Your task to perform on an android device: read, delete, or share a saved page in the chrome app Image 0: 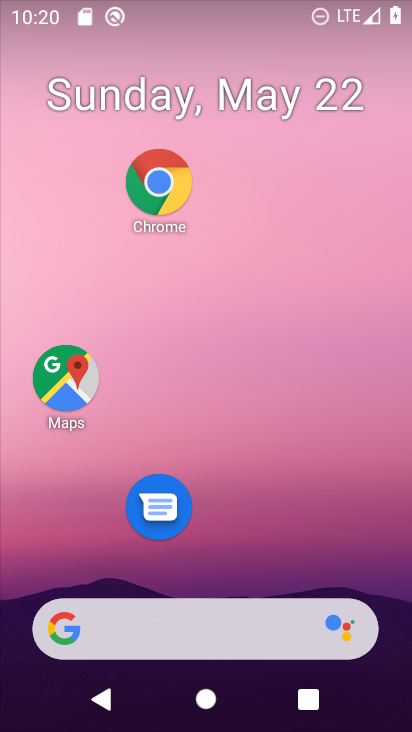
Step 0: click (162, 189)
Your task to perform on an android device: read, delete, or share a saved page in the chrome app Image 1: 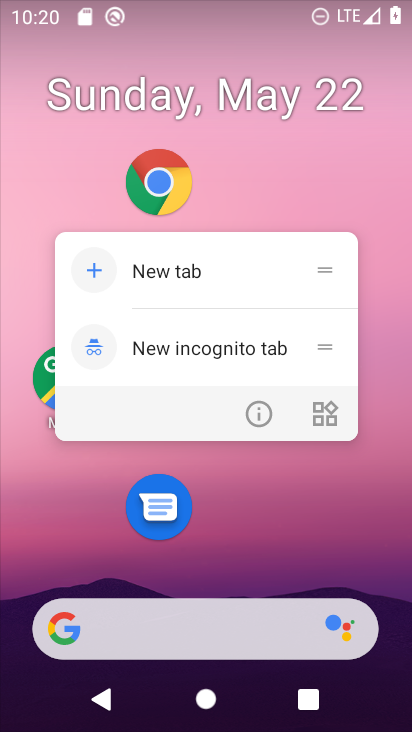
Step 1: click (162, 164)
Your task to perform on an android device: read, delete, or share a saved page in the chrome app Image 2: 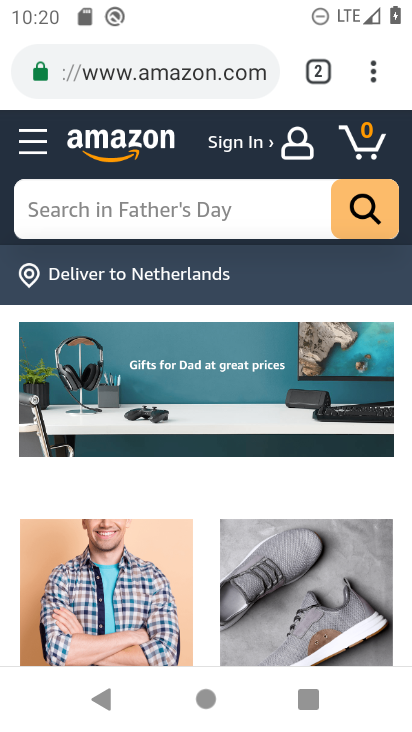
Step 2: click (368, 64)
Your task to perform on an android device: read, delete, or share a saved page in the chrome app Image 3: 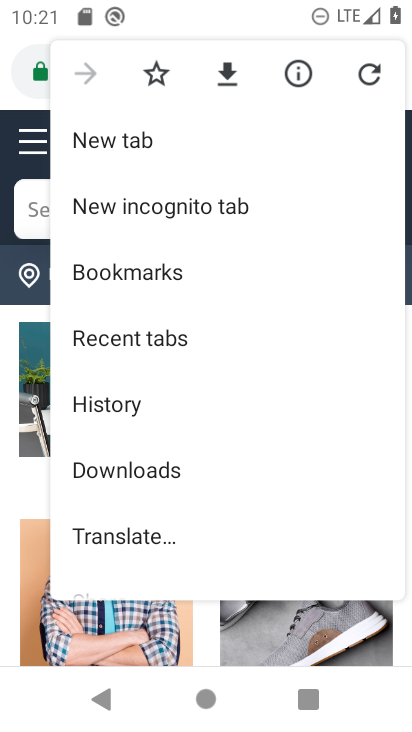
Step 3: click (213, 465)
Your task to perform on an android device: read, delete, or share a saved page in the chrome app Image 4: 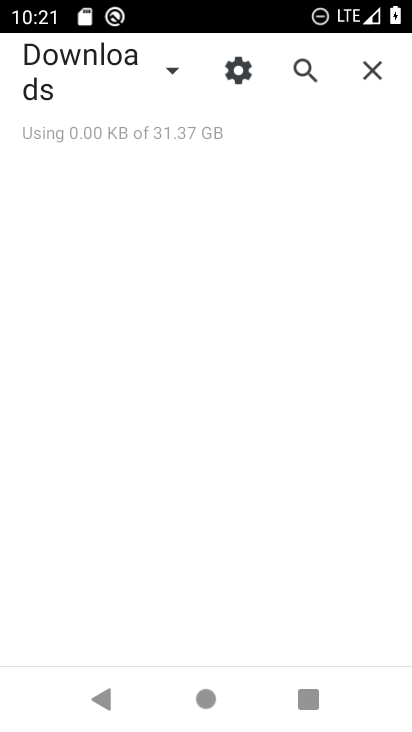
Step 4: task complete